Your task to perform on an android device: snooze an email in the gmail app Image 0: 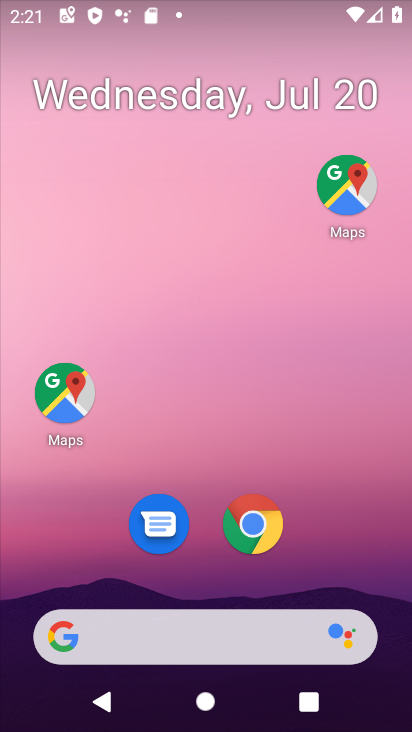
Step 0: drag from (311, 542) to (370, 78)
Your task to perform on an android device: snooze an email in the gmail app Image 1: 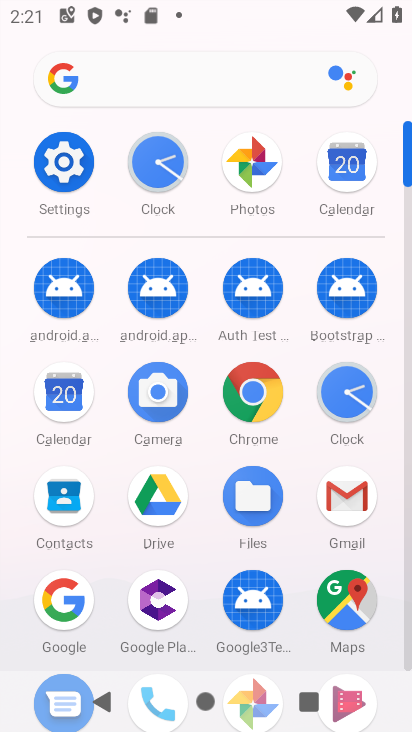
Step 1: click (348, 493)
Your task to perform on an android device: snooze an email in the gmail app Image 2: 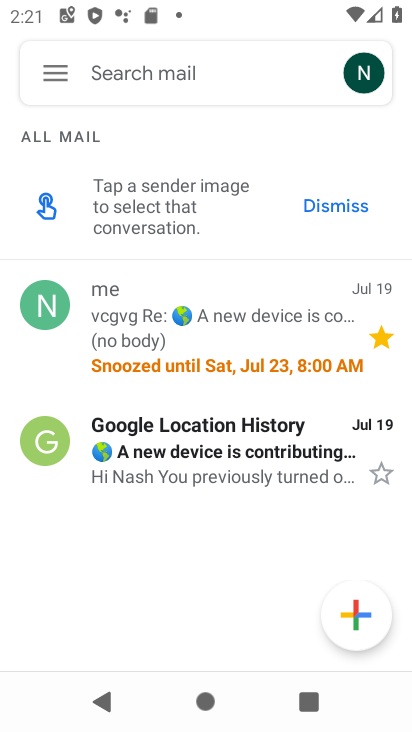
Step 2: click (282, 430)
Your task to perform on an android device: snooze an email in the gmail app Image 3: 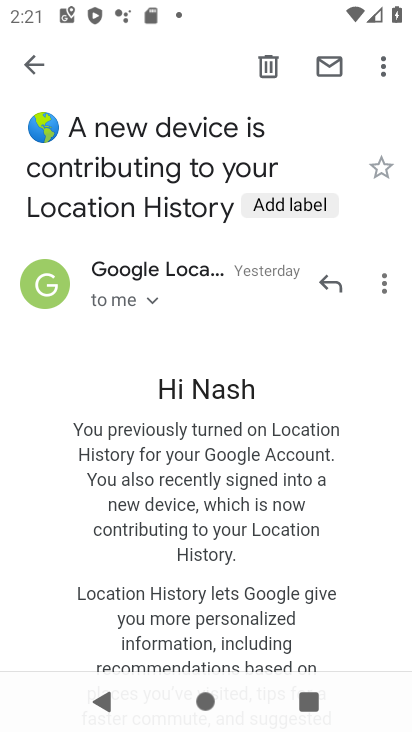
Step 3: click (383, 64)
Your task to perform on an android device: snooze an email in the gmail app Image 4: 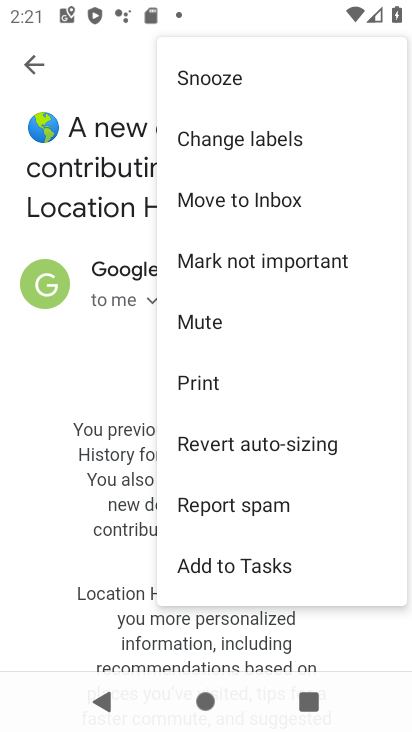
Step 4: click (286, 76)
Your task to perform on an android device: snooze an email in the gmail app Image 5: 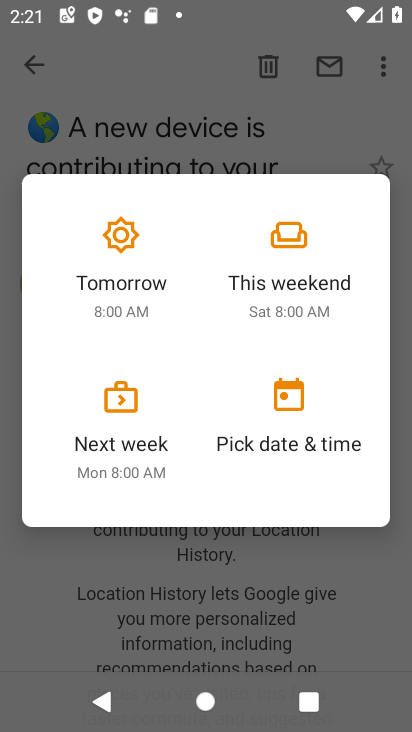
Step 5: click (299, 266)
Your task to perform on an android device: snooze an email in the gmail app Image 6: 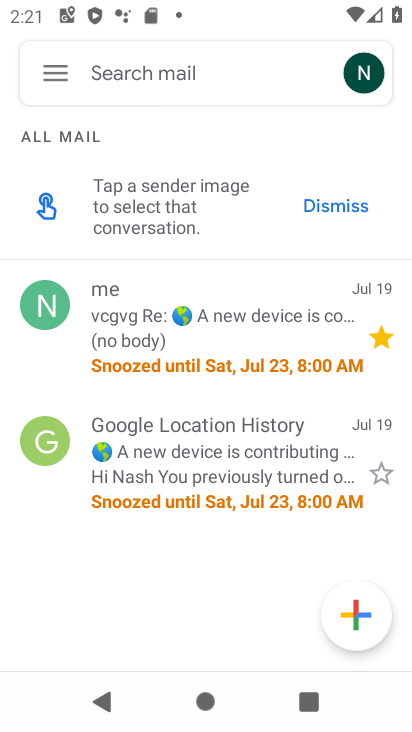
Step 6: task complete